Your task to perform on an android device: turn on showing notifications on the lock screen Image 0: 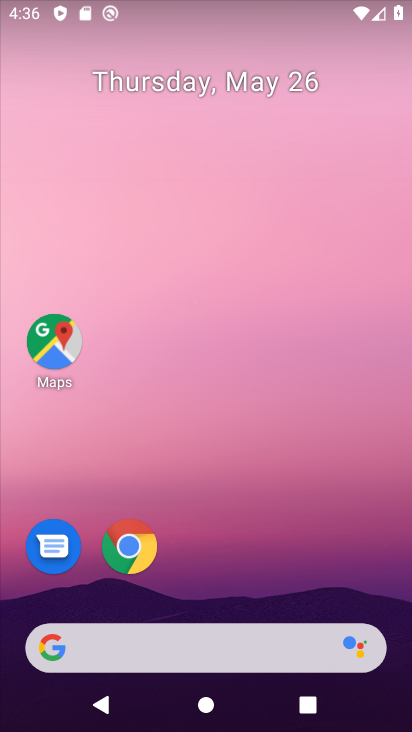
Step 0: drag from (256, 592) to (192, 120)
Your task to perform on an android device: turn on showing notifications on the lock screen Image 1: 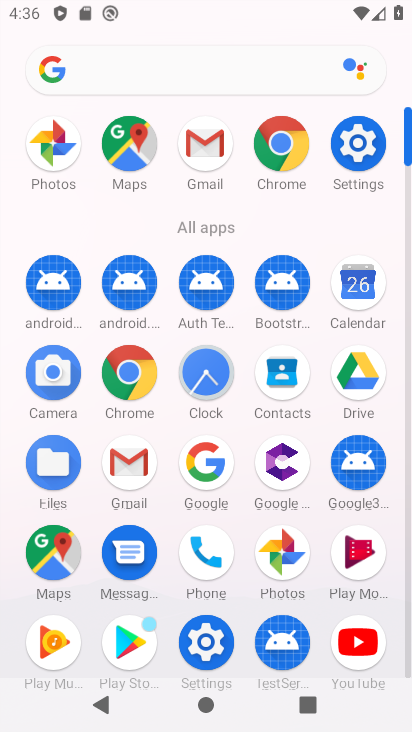
Step 1: click (358, 161)
Your task to perform on an android device: turn on showing notifications on the lock screen Image 2: 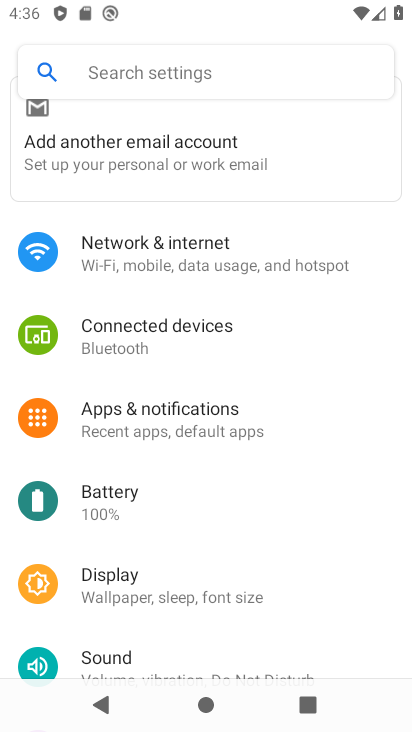
Step 2: click (280, 409)
Your task to perform on an android device: turn on showing notifications on the lock screen Image 3: 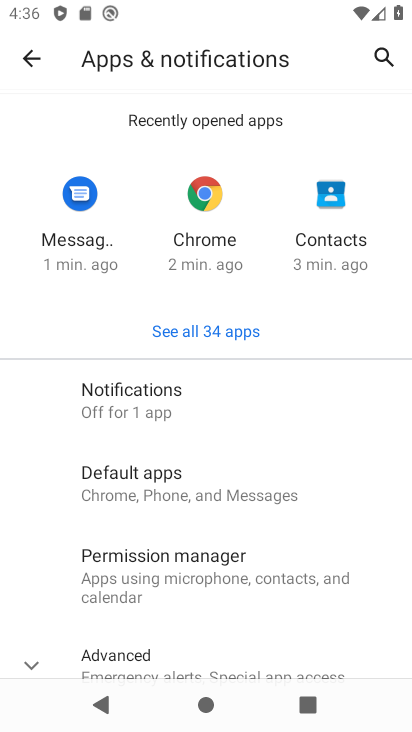
Step 3: click (209, 394)
Your task to perform on an android device: turn on showing notifications on the lock screen Image 4: 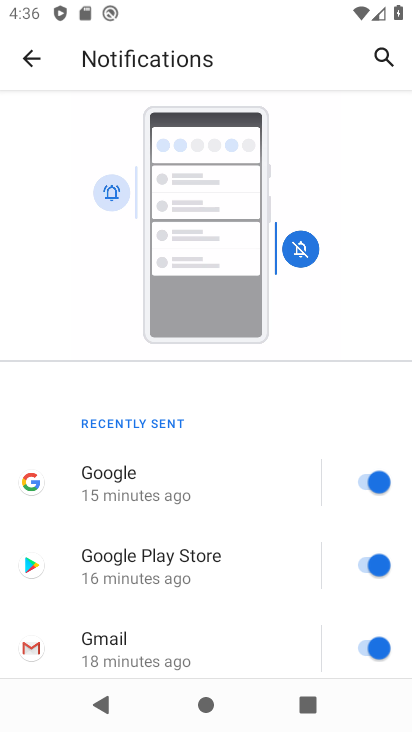
Step 4: drag from (258, 604) to (191, 101)
Your task to perform on an android device: turn on showing notifications on the lock screen Image 5: 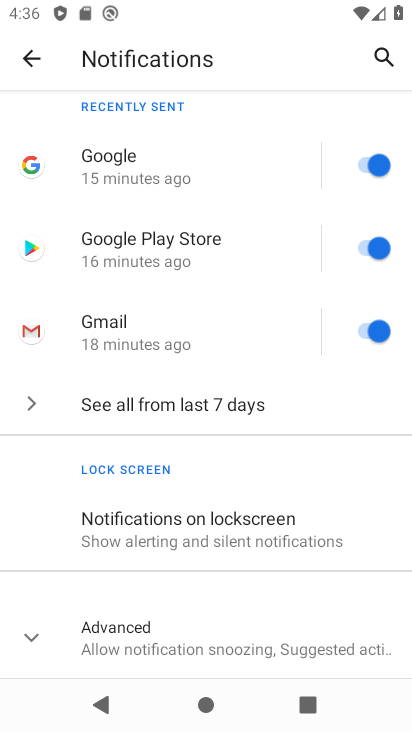
Step 5: click (241, 523)
Your task to perform on an android device: turn on showing notifications on the lock screen Image 6: 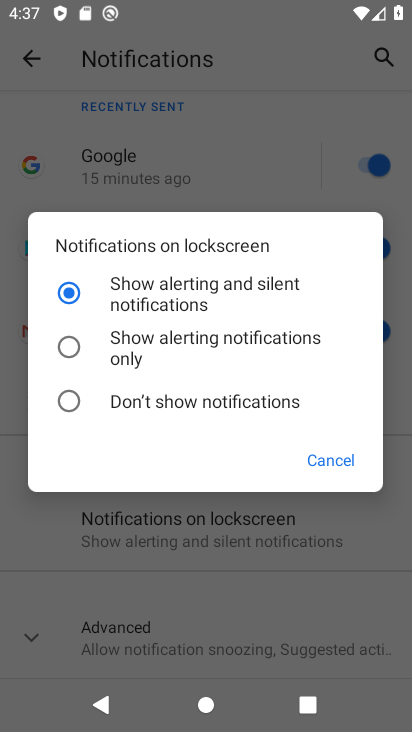
Step 6: task complete